Your task to perform on an android device: uninstall "Yahoo Mail" Image 0: 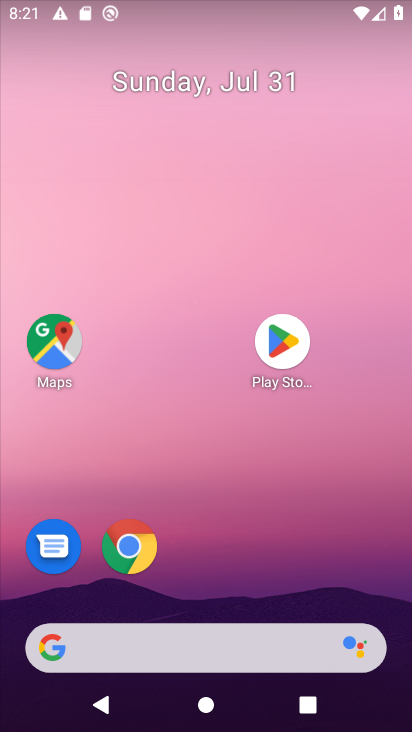
Step 0: press home button
Your task to perform on an android device: uninstall "Yahoo Mail" Image 1: 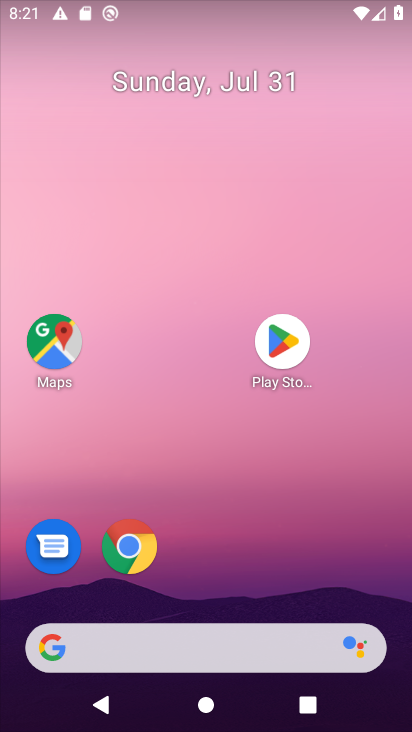
Step 1: click (282, 344)
Your task to perform on an android device: uninstall "Yahoo Mail" Image 2: 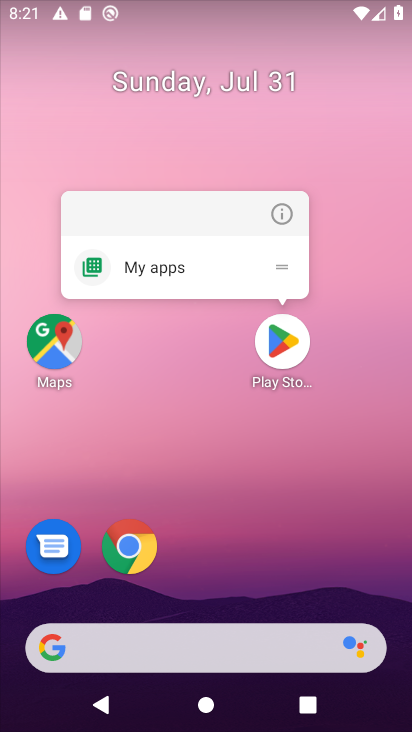
Step 2: click (283, 341)
Your task to perform on an android device: uninstall "Yahoo Mail" Image 3: 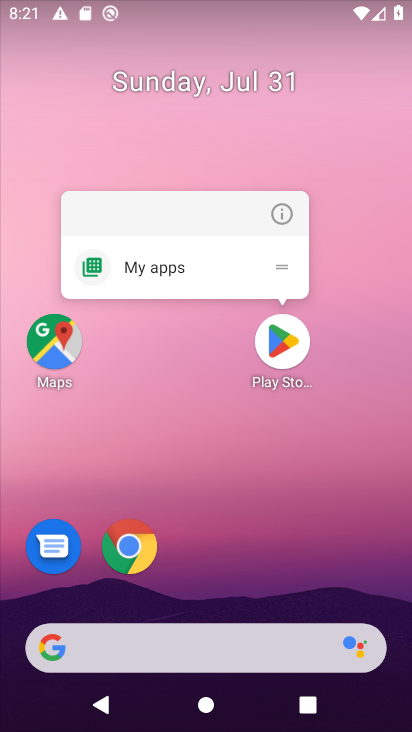
Step 3: click (283, 342)
Your task to perform on an android device: uninstall "Yahoo Mail" Image 4: 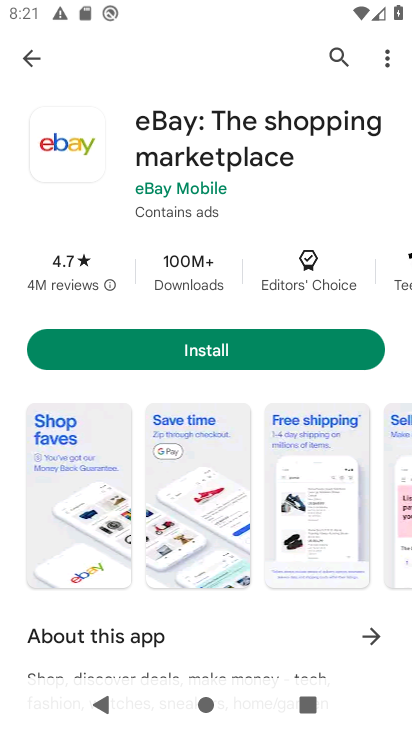
Step 4: click (337, 53)
Your task to perform on an android device: uninstall "Yahoo Mail" Image 5: 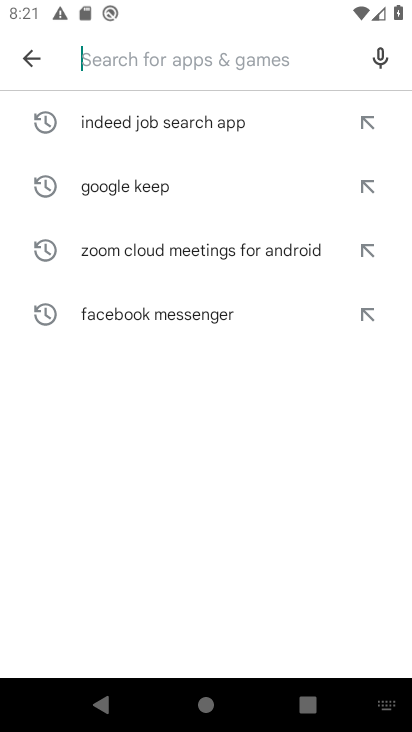
Step 5: type "Yahoo Mail"
Your task to perform on an android device: uninstall "Yahoo Mail" Image 6: 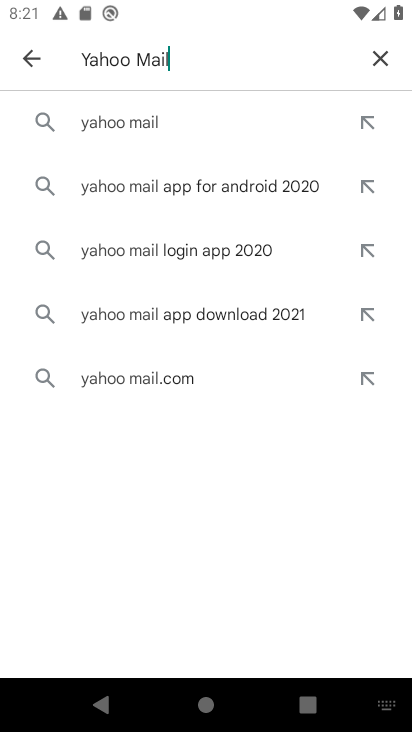
Step 6: click (158, 127)
Your task to perform on an android device: uninstall "Yahoo Mail" Image 7: 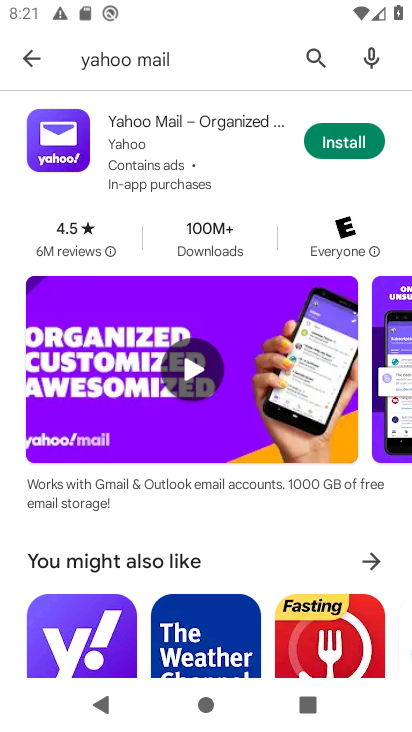
Step 7: task complete